Your task to perform on an android device: open the mobile data screen to see how much data has been used Image 0: 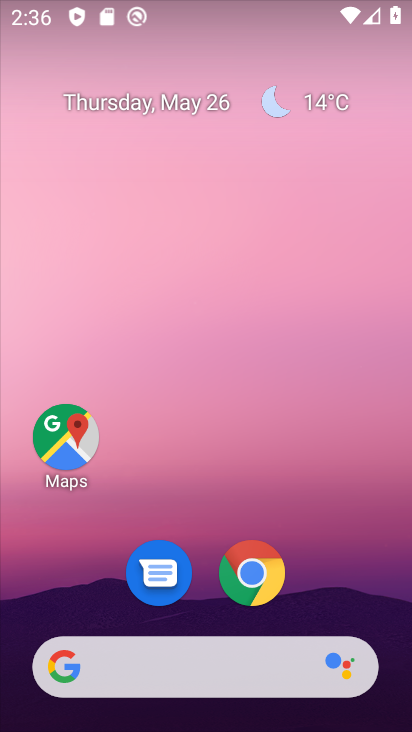
Step 0: drag from (338, 597) to (191, 24)
Your task to perform on an android device: open the mobile data screen to see how much data has been used Image 1: 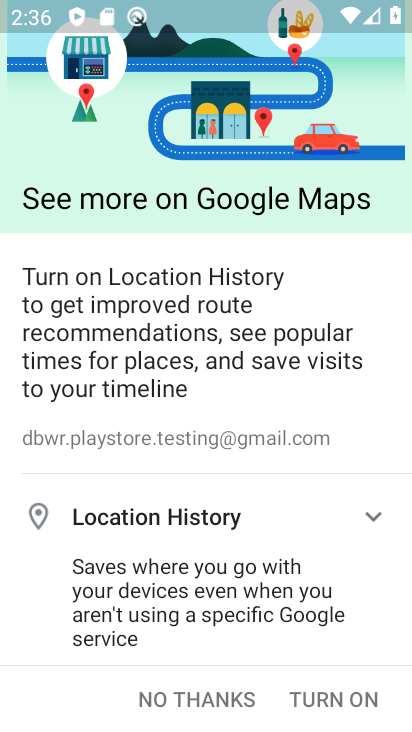
Step 1: press back button
Your task to perform on an android device: open the mobile data screen to see how much data has been used Image 2: 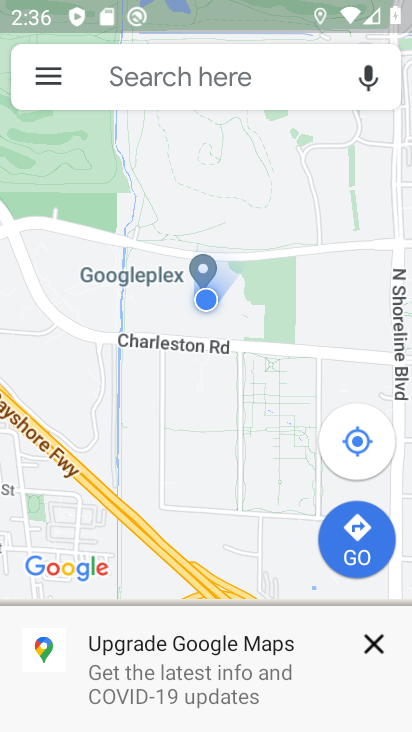
Step 2: press home button
Your task to perform on an android device: open the mobile data screen to see how much data has been used Image 3: 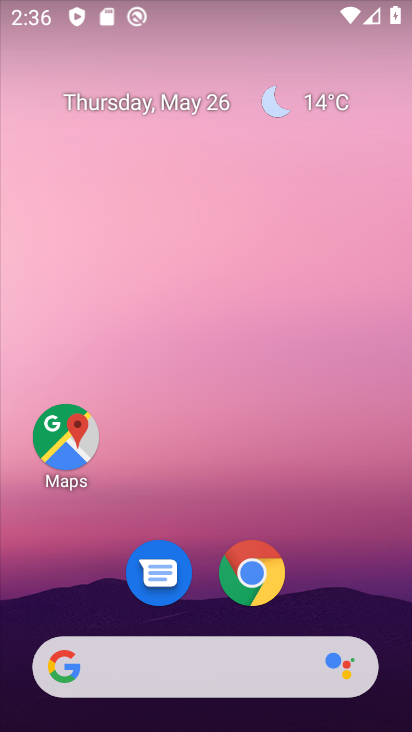
Step 3: drag from (352, 588) to (288, 43)
Your task to perform on an android device: open the mobile data screen to see how much data has been used Image 4: 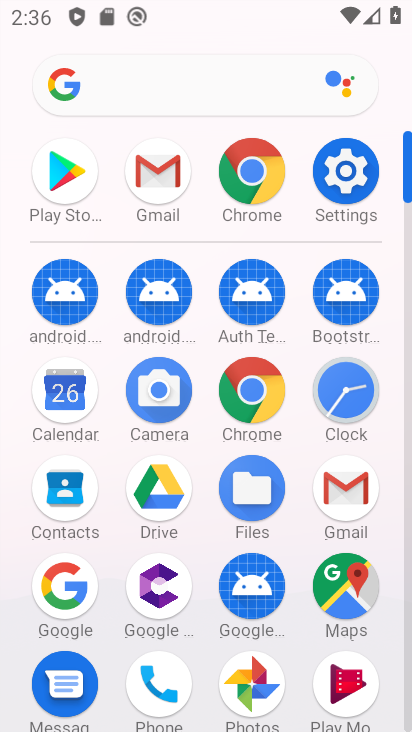
Step 4: click (349, 167)
Your task to perform on an android device: open the mobile data screen to see how much data has been used Image 5: 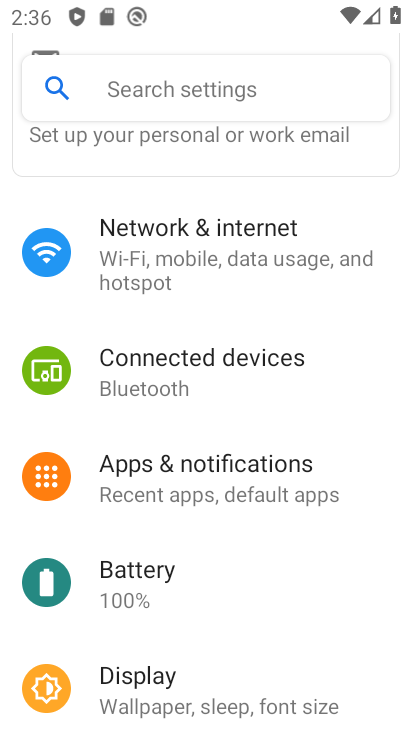
Step 5: click (248, 272)
Your task to perform on an android device: open the mobile data screen to see how much data has been used Image 6: 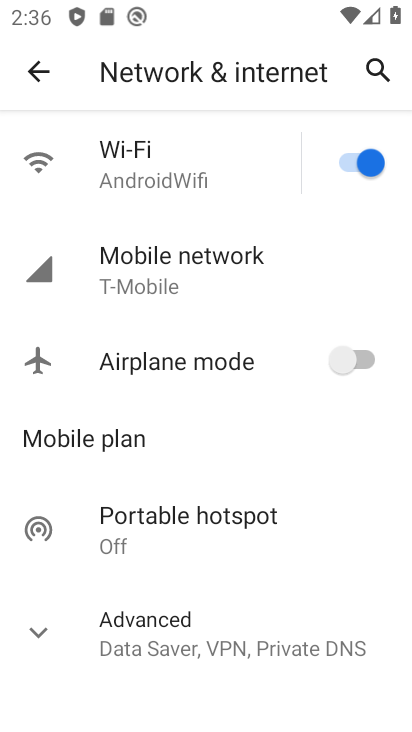
Step 6: click (238, 270)
Your task to perform on an android device: open the mobile data screen to see how much data has been used Image 7: 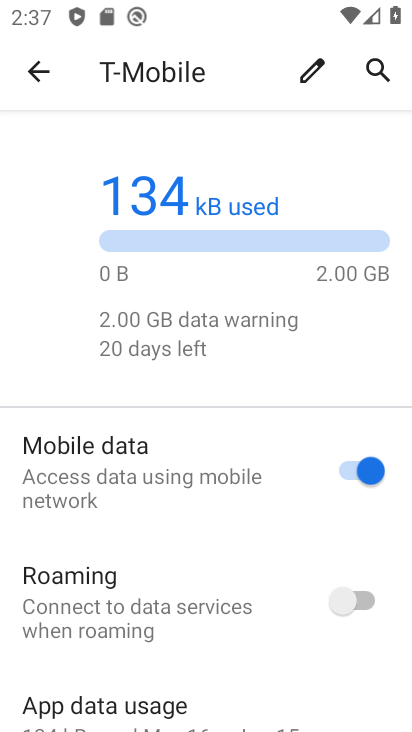
Step 7: task complete